Your task to perform on an android device: Open Wikipedia Image 0: 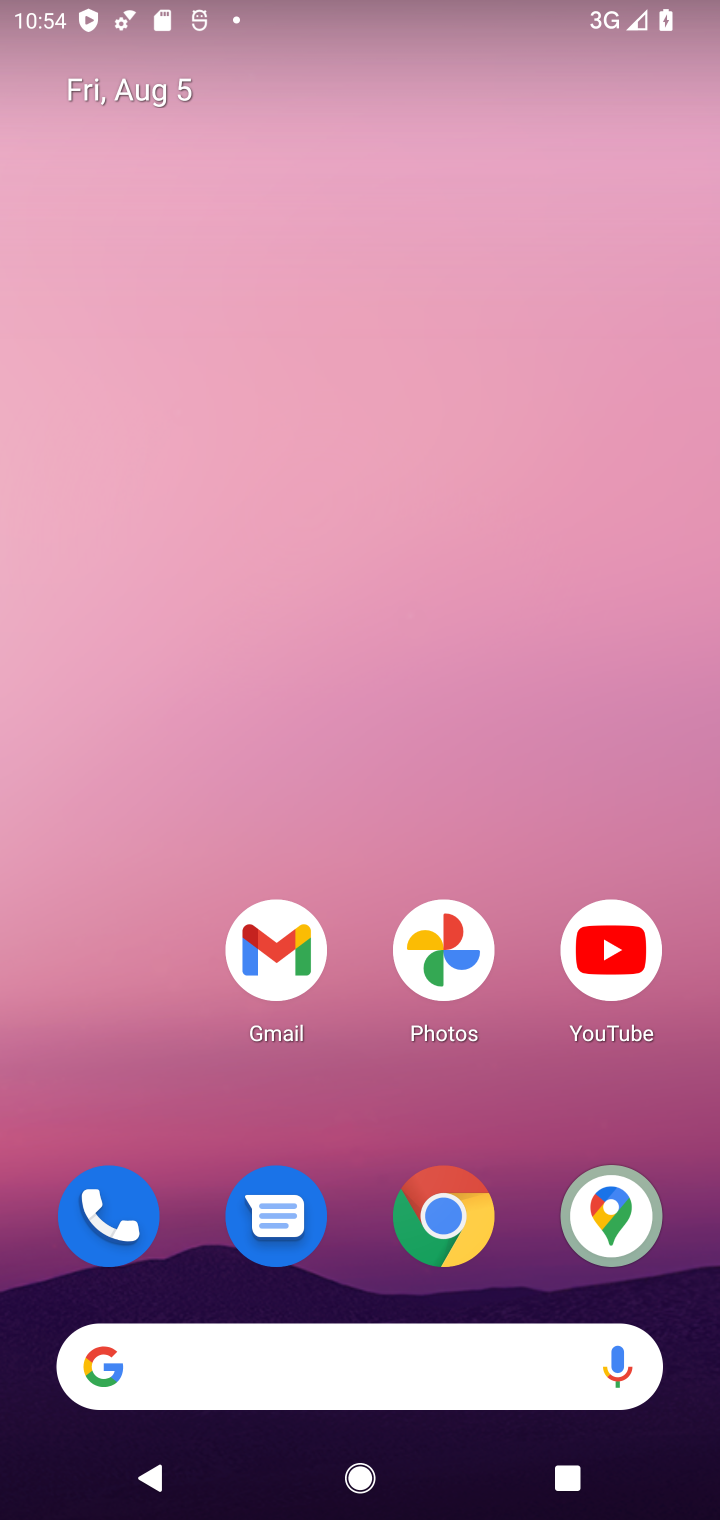
Step 0: drag from (421, 1339) to (365, 16)
Your task to perform on an android device: Open Wikipedia Image 1: 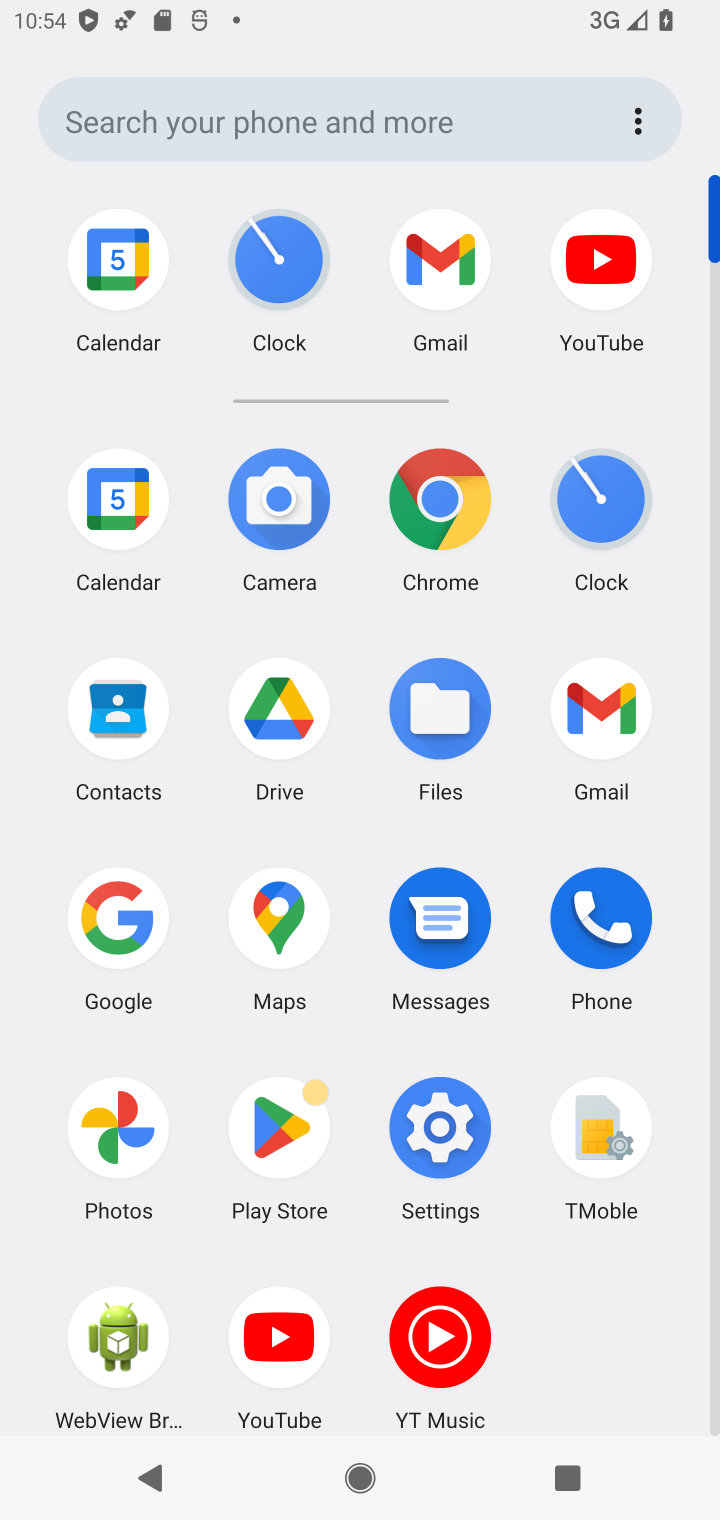
Step 1: click (455, 498)
Your task to perform on an android device: Open Wikipedia Image 2: 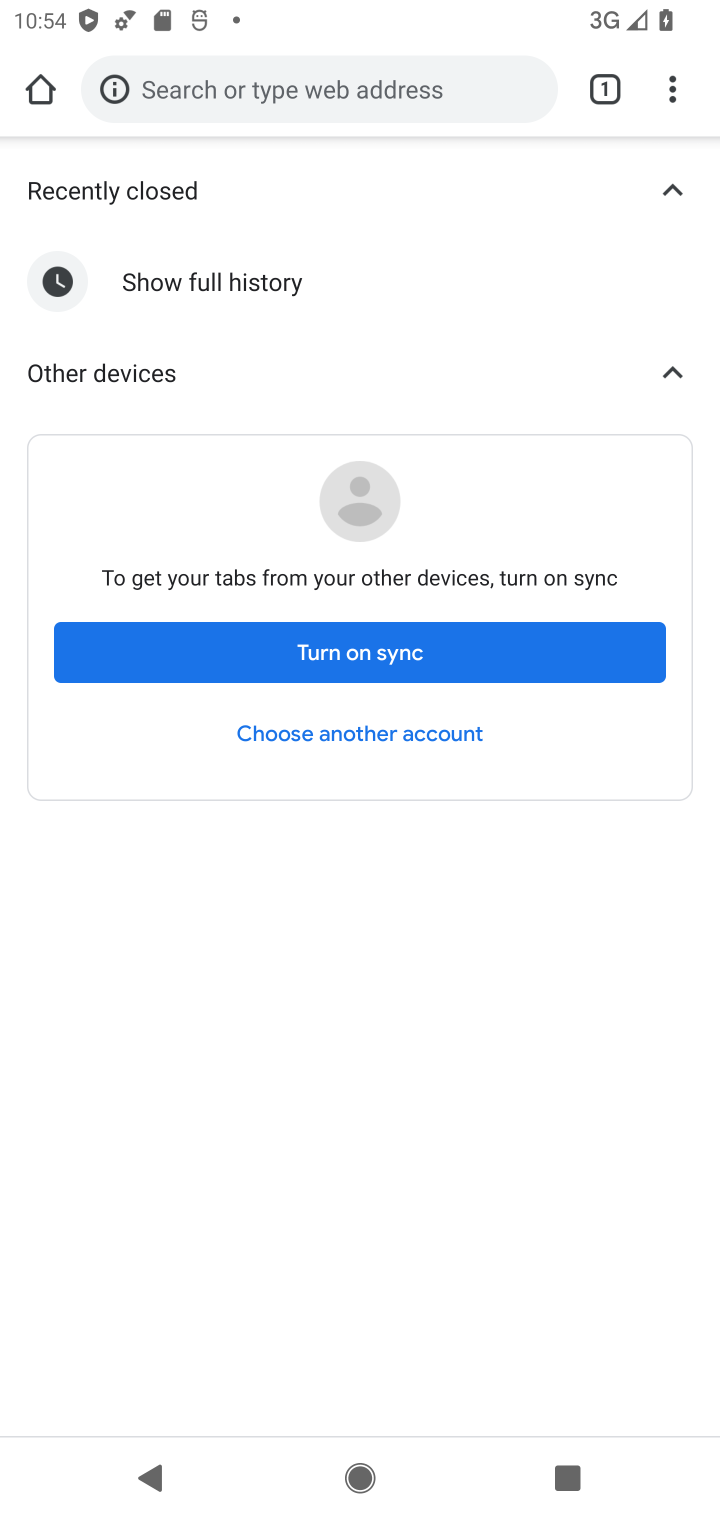
Step 2: click (661, 70)
Your task to perform on an android device: Open Wikipedia Image 3: 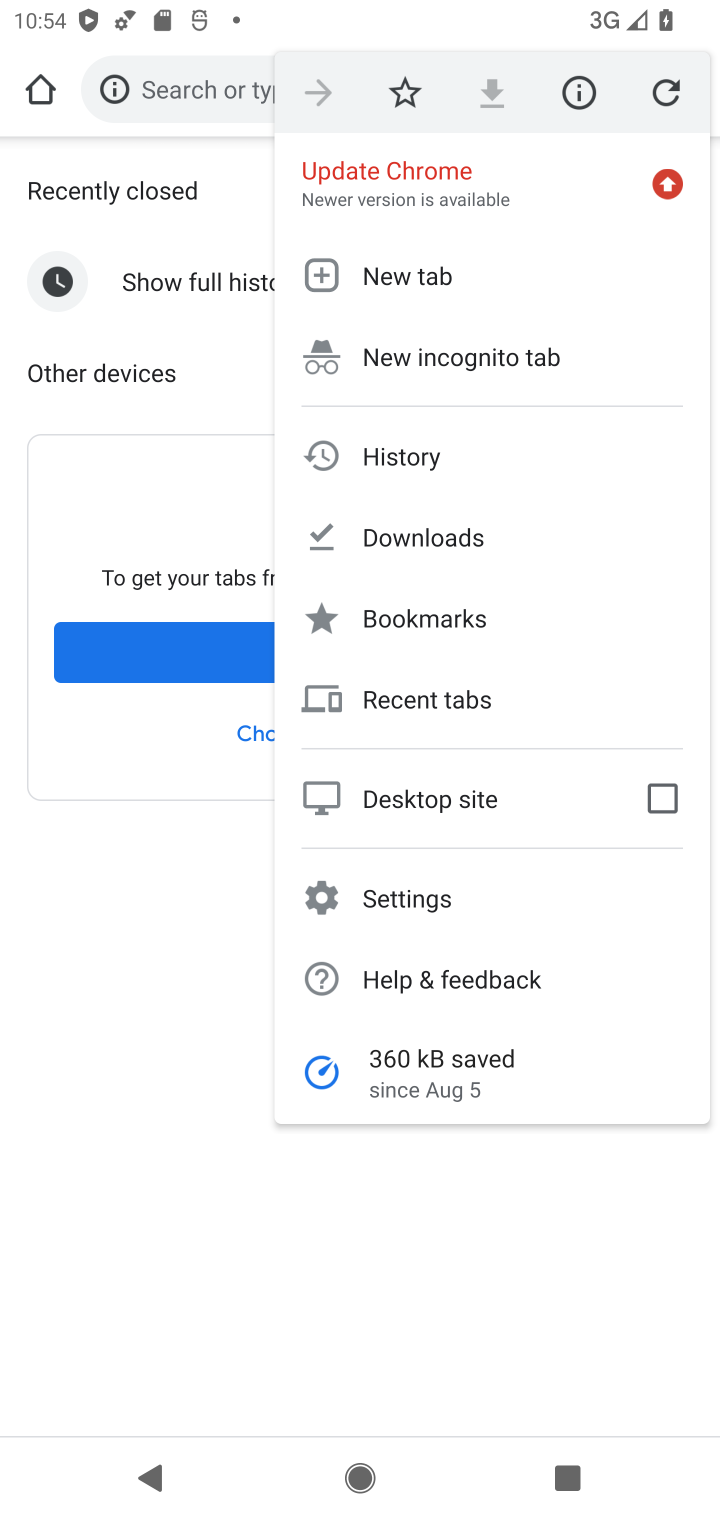
Step 3: click (422, 273)
Your task to perform on an android device: Open Wikipedia Image 4: 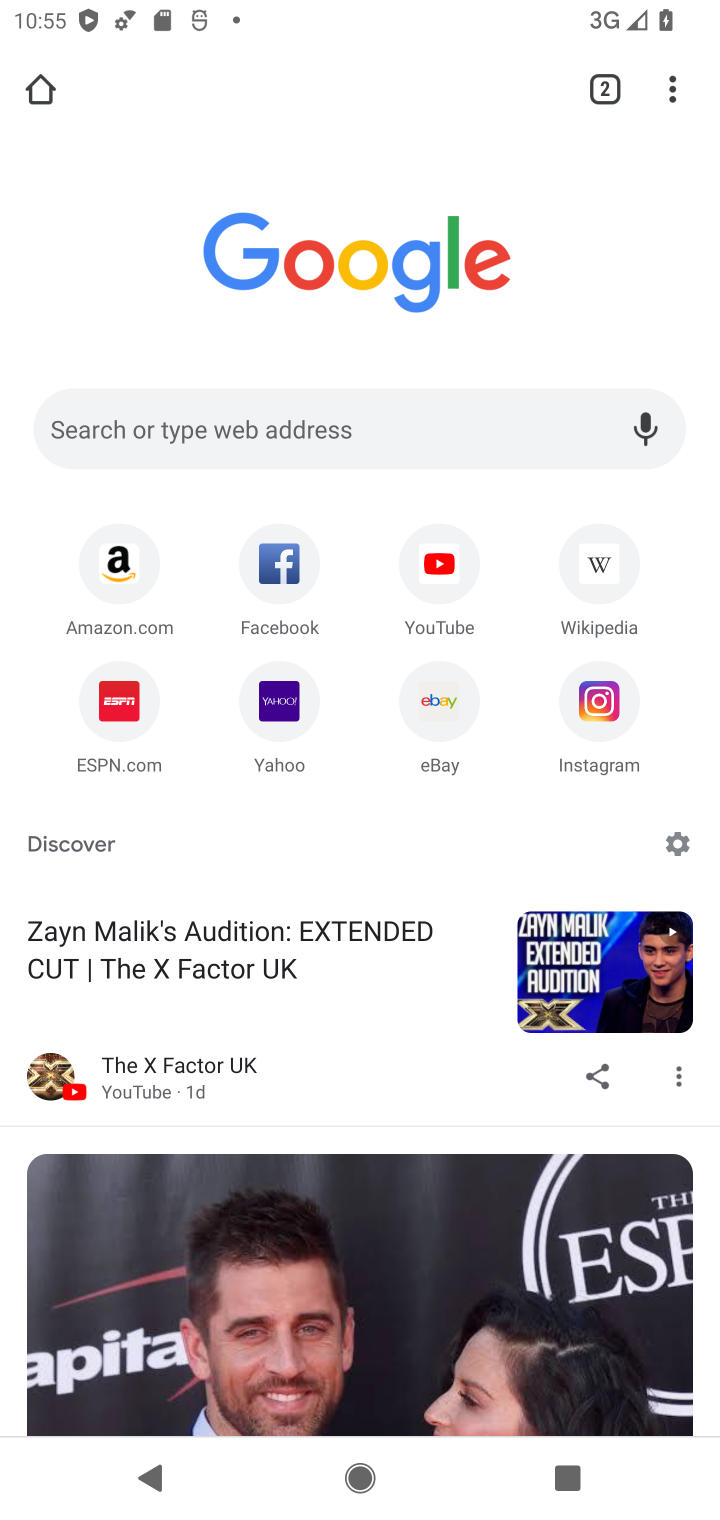
Step 4: click (579, 560)
Your task to perform on an android device: Open Wikipedia Image 5: 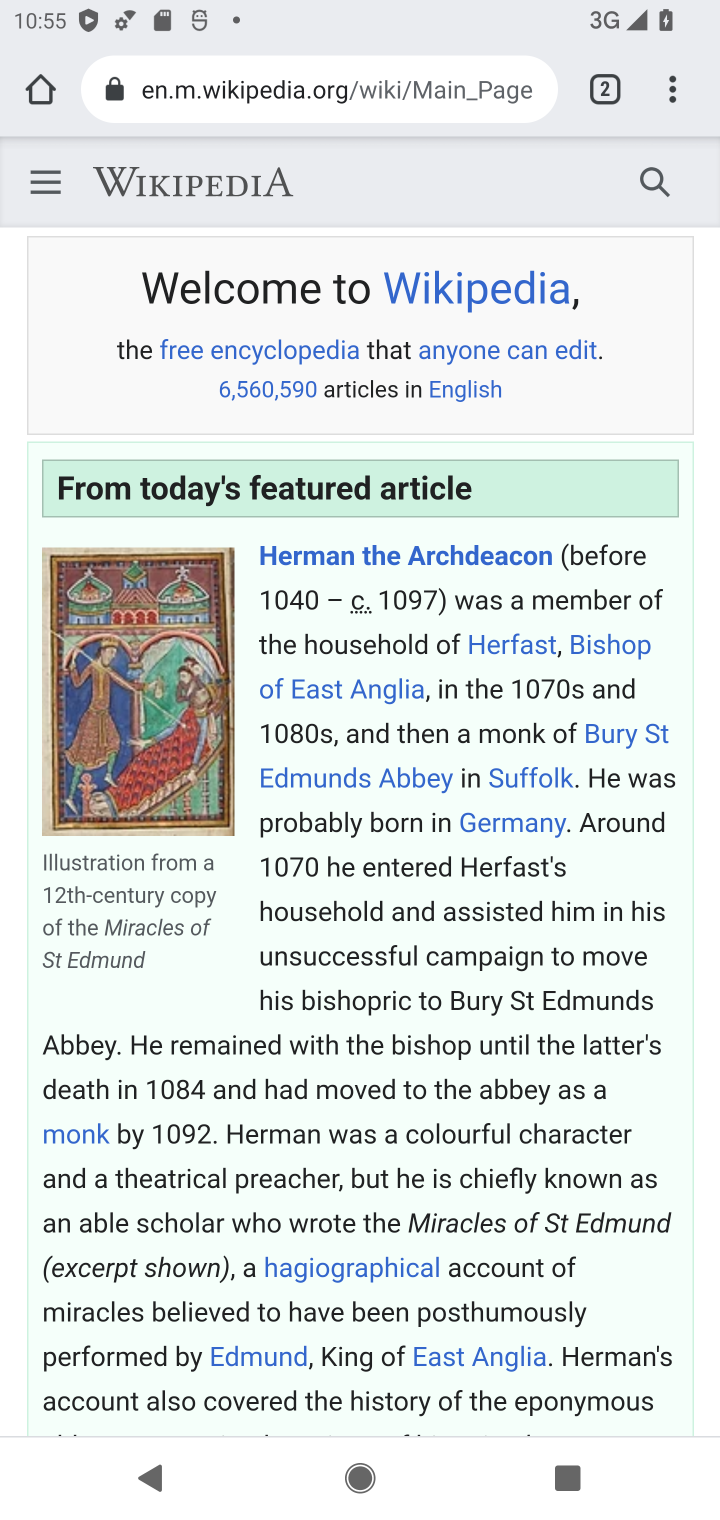
Step 5: task complete